Your task to perform on an android device: find photos in the google photos app Image 0: 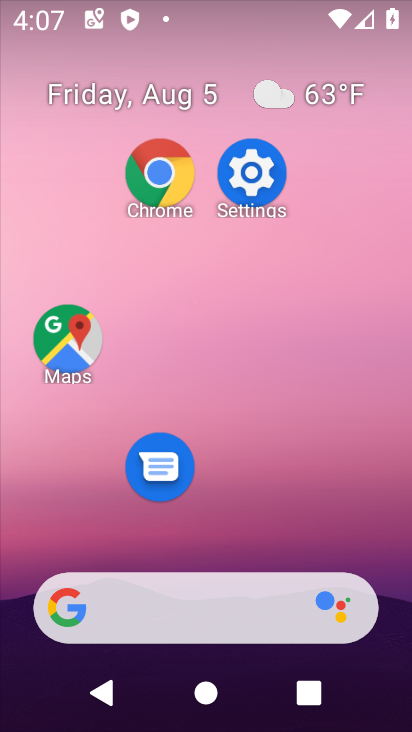
Step 0: drag from (247, 532) to (263, 51)
Your task to perform on an android device: find photos in the google photos app Image 1: 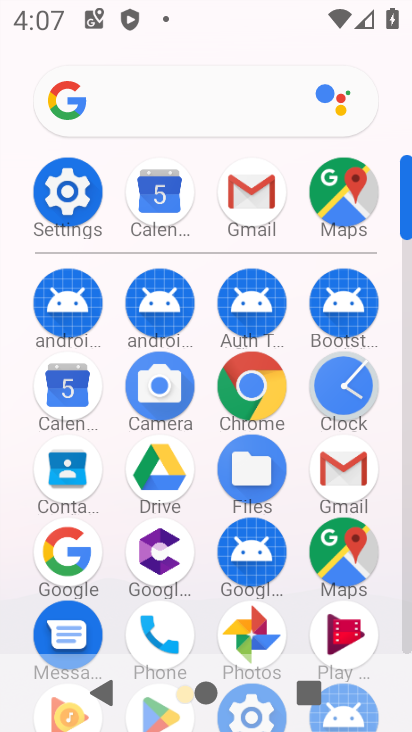
Step 1: click (258, 633)
Your task to perform on an android device: find photos in the google photos app Image 2: 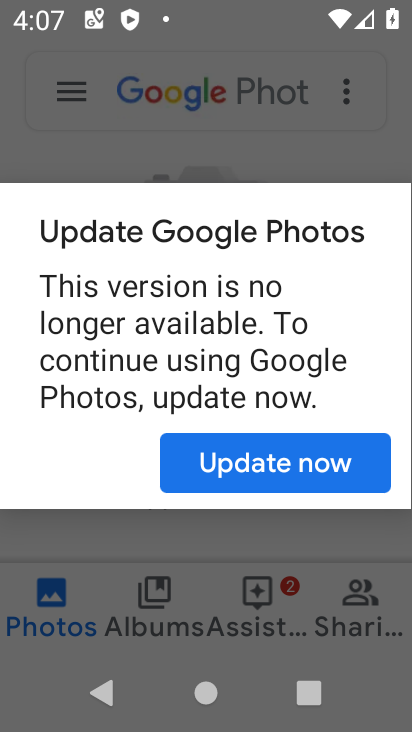
Step 2: click (272, 456)
Your task to perform on an android device: find photos in the google photos app Image 3: 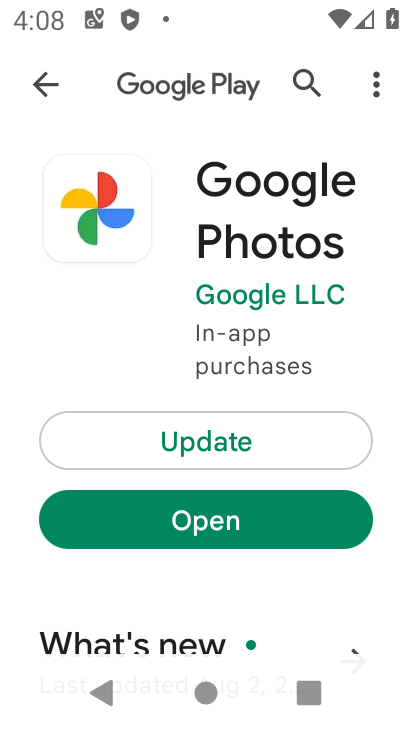
Step 3: press home button
Your task to perform on an android device: find photos in the google photos app Image 4: 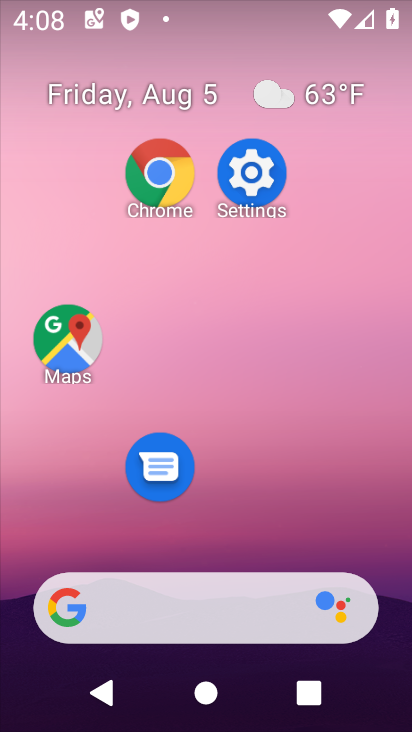
Step 4: drag from (243, 423) to (219, 59)
Your task to perform on an android device: find photos in the google photos app Image 5: 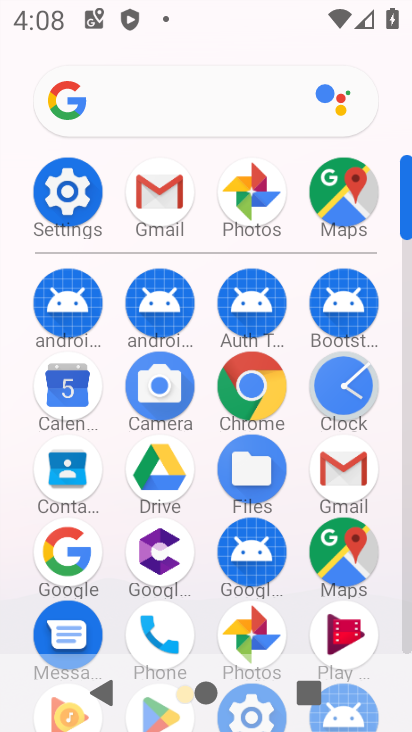
Step 5: click (250, 201)
Your task to perform on an android device: find photos in the google photos app Image 6: 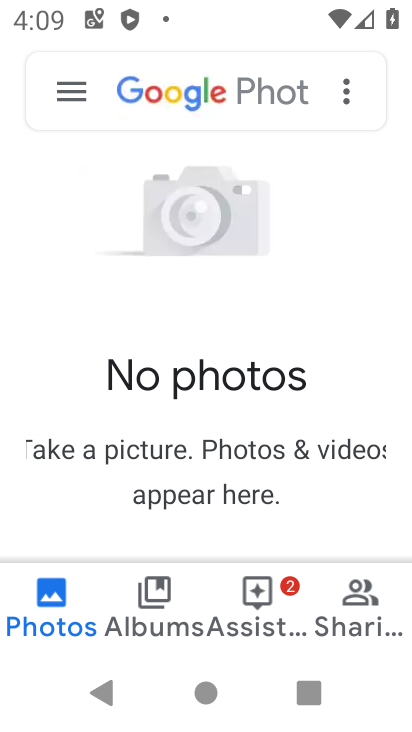
Step 6: task complete